Your task to perform on an android device: turn smart compose on in the gmail app Image 0: 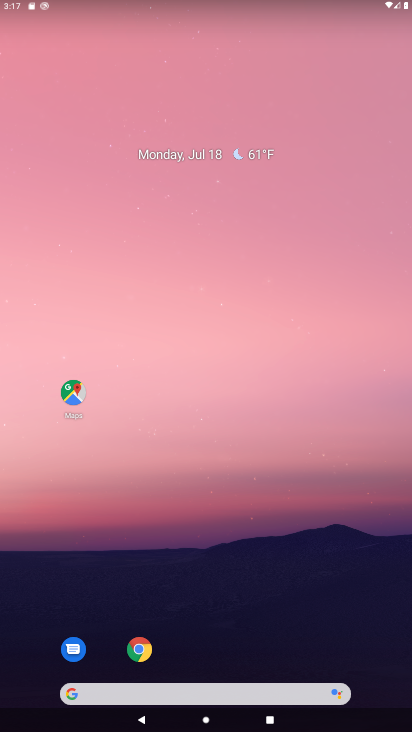
Step 0: drag from (226, 617) to (232, 107)
Your task to perform on an android device: turn smart compose on in the gmail app Image 1: 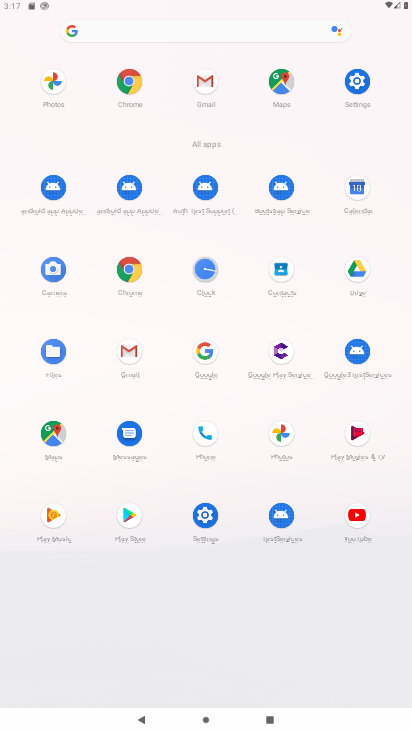
Step 1: click (134, 363)
Your task to perform on an android device: turn smart compose on in the gmail app Image 2: 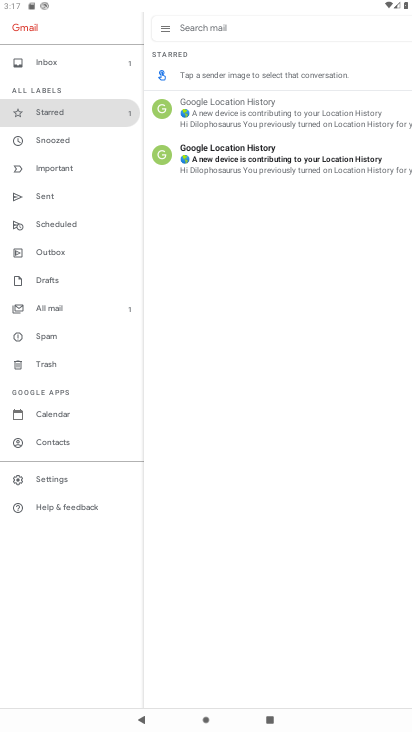
Step 2: click (34, 473)
Your task to perform on an android device: turn smart compose on in the gmail app Image 3: 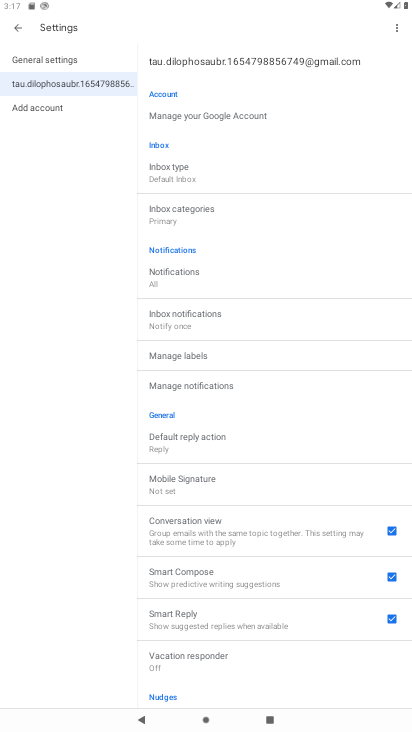
Step 3: task complete